Your task to perform on an android device: turn off sleep mode Image 0: 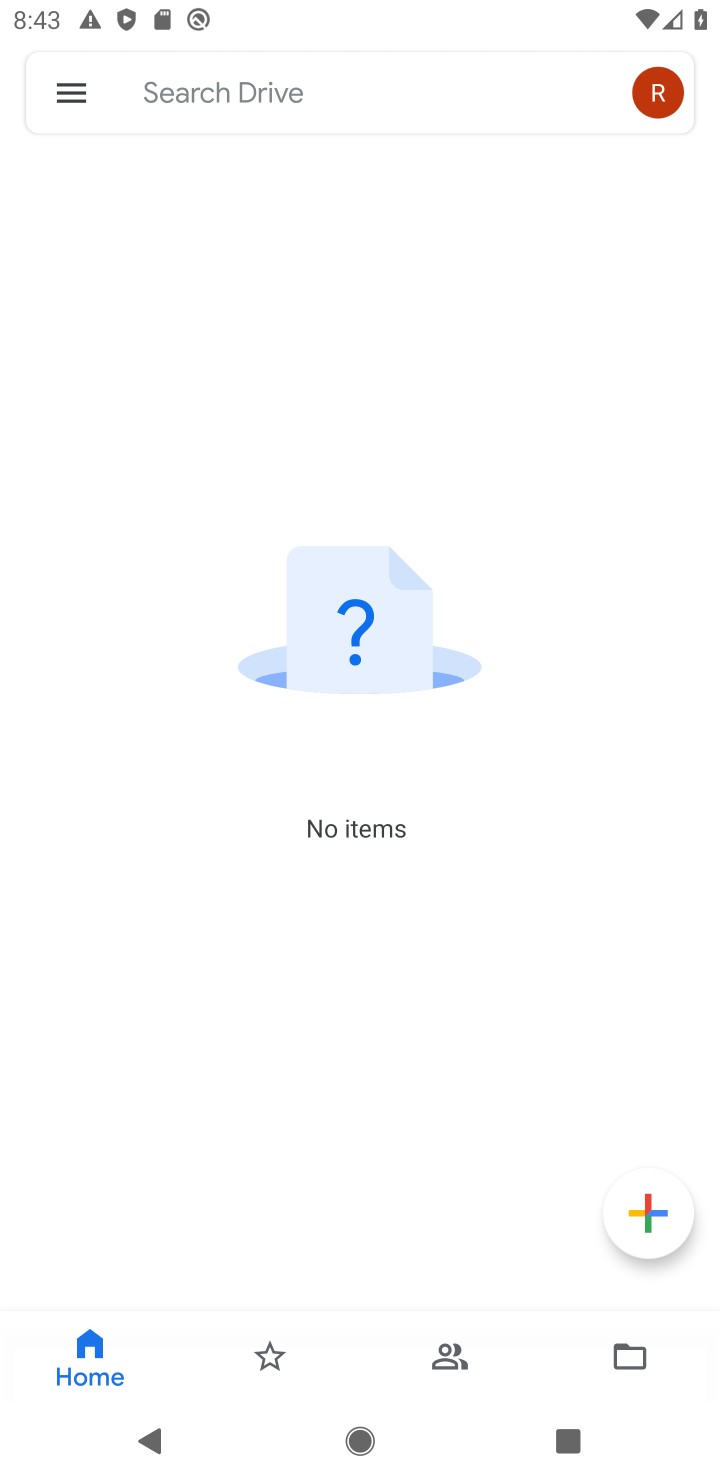
Step 0: press home button
Your task to perform on an android device: turn off sleep mode Image 1: 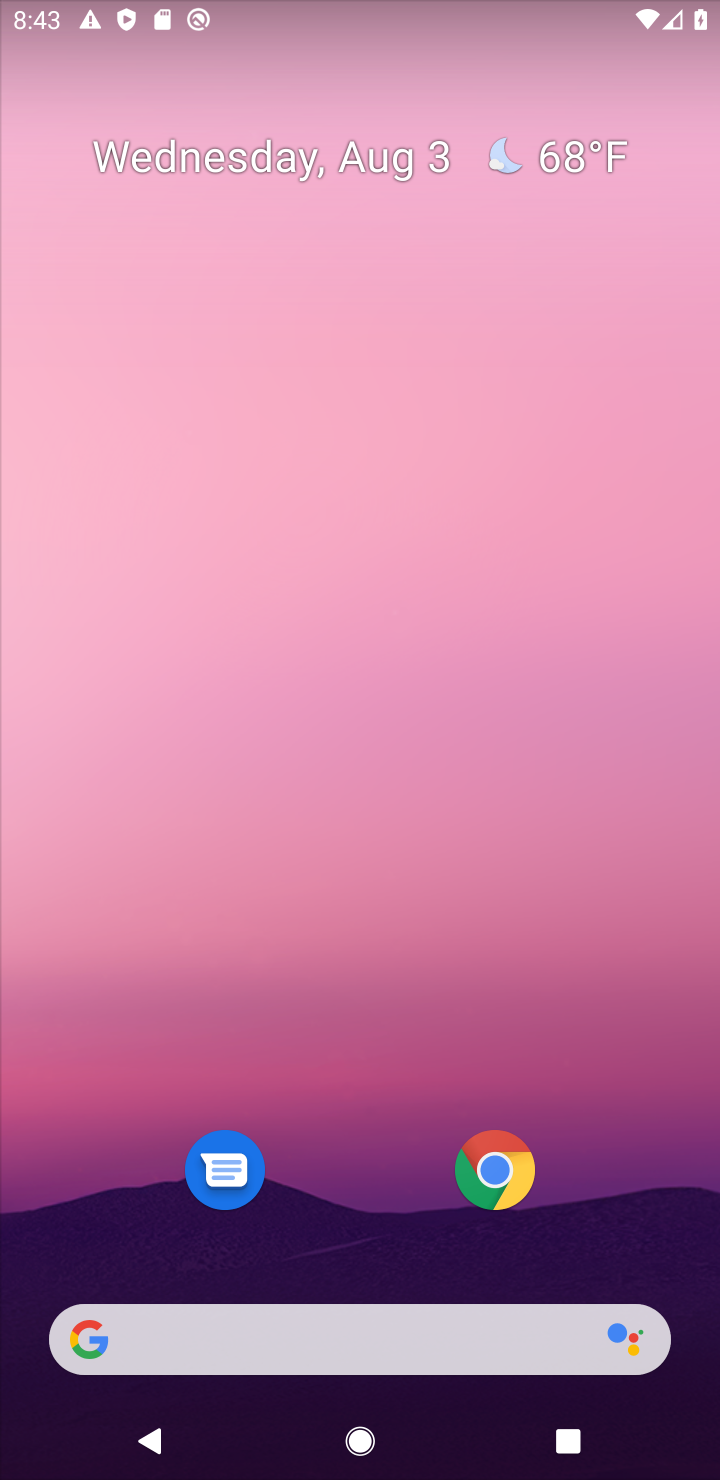
Step 1: drag from (671, 1232) to (571, 461)
Your task to perform on an android device: turn off sleep mode Image 2: 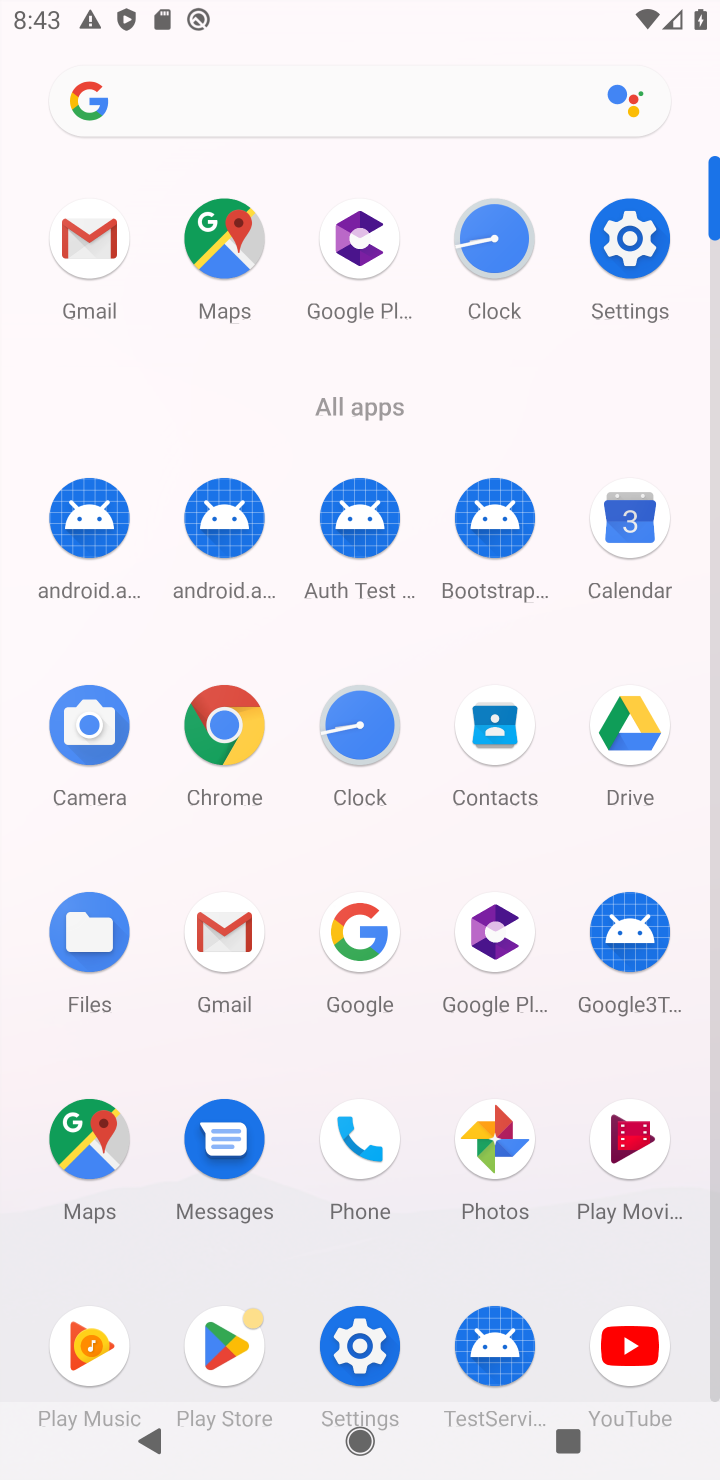
Step 2: click (355, 1346)
Your task to perform on an android device: turn off sleep mode Image 3: 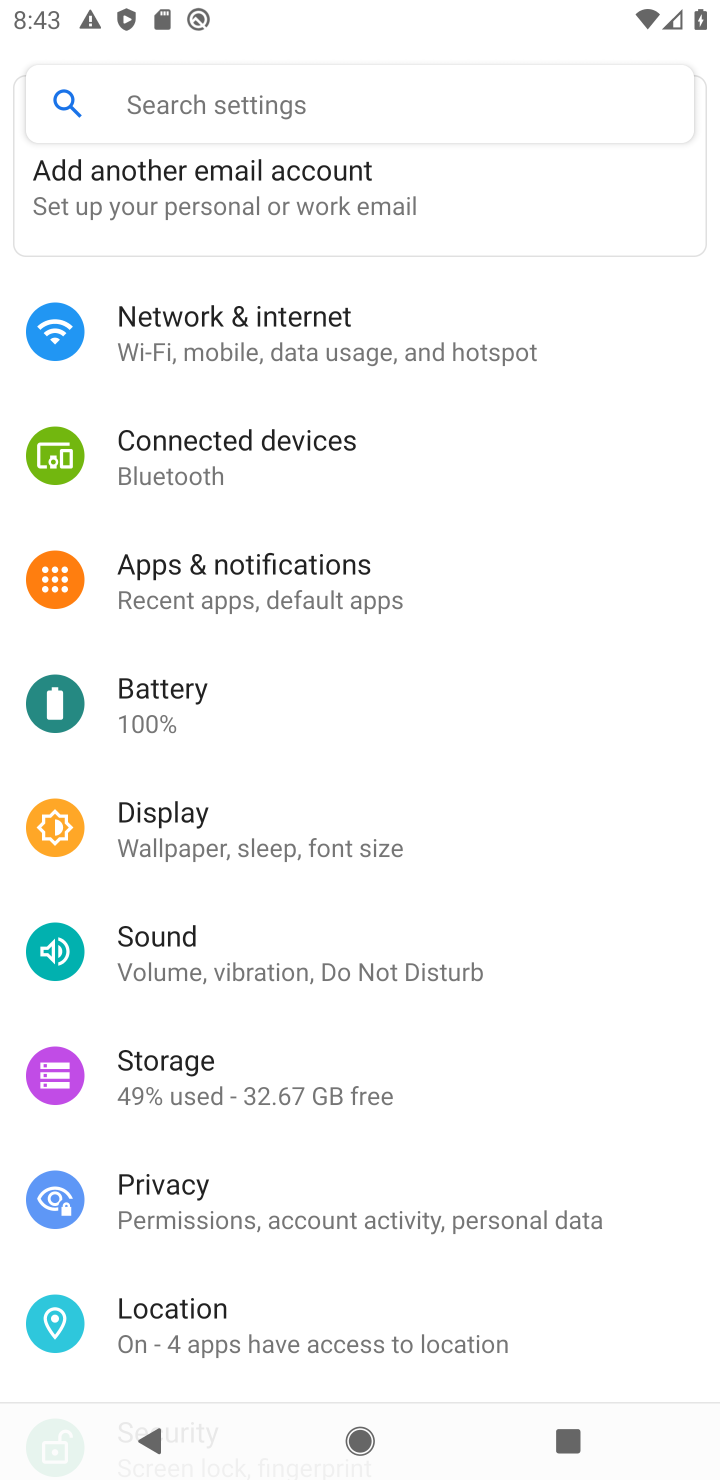
Step 3: click (203, 833)
Your task to perform on an android device: turn off sleep mode Image 4: 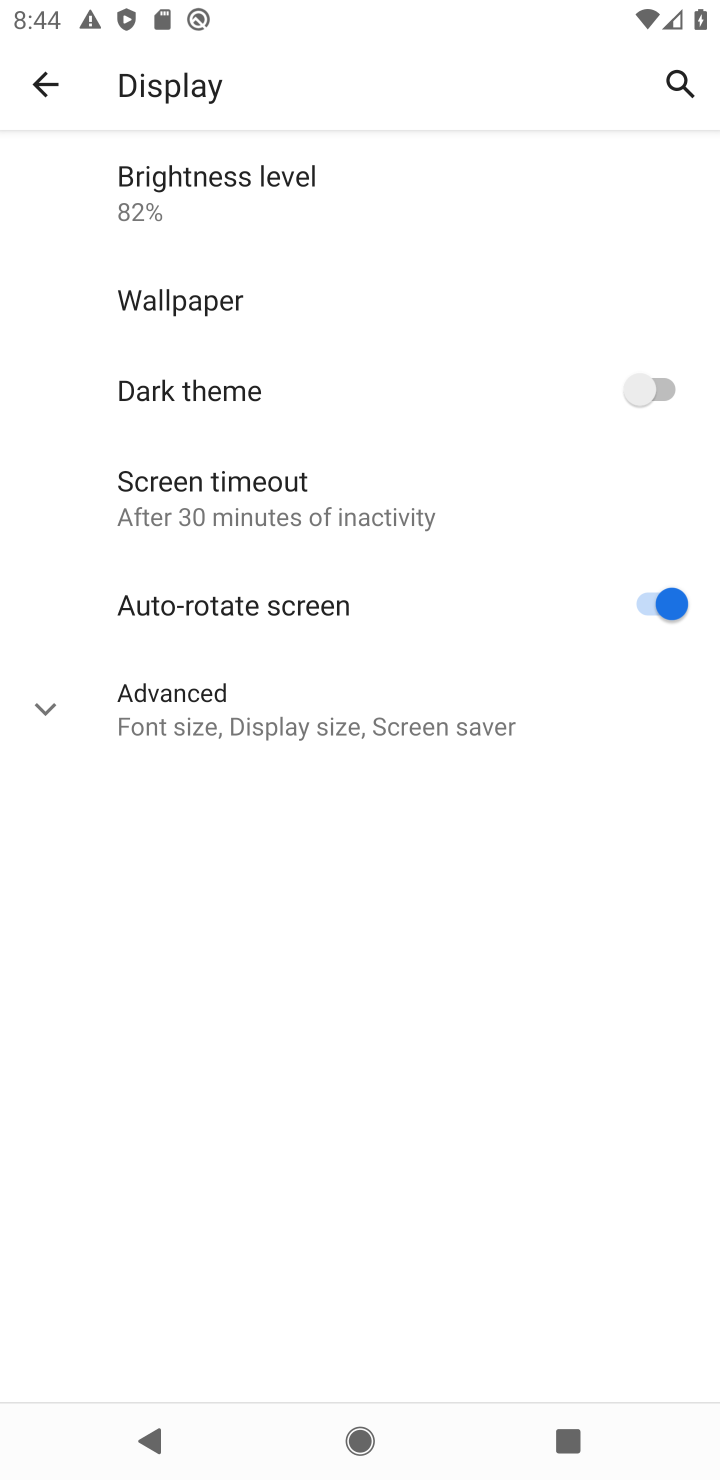
Step 4: click (56, 695)
Your task to perform on an android device: turn off sleep mode Image 5: 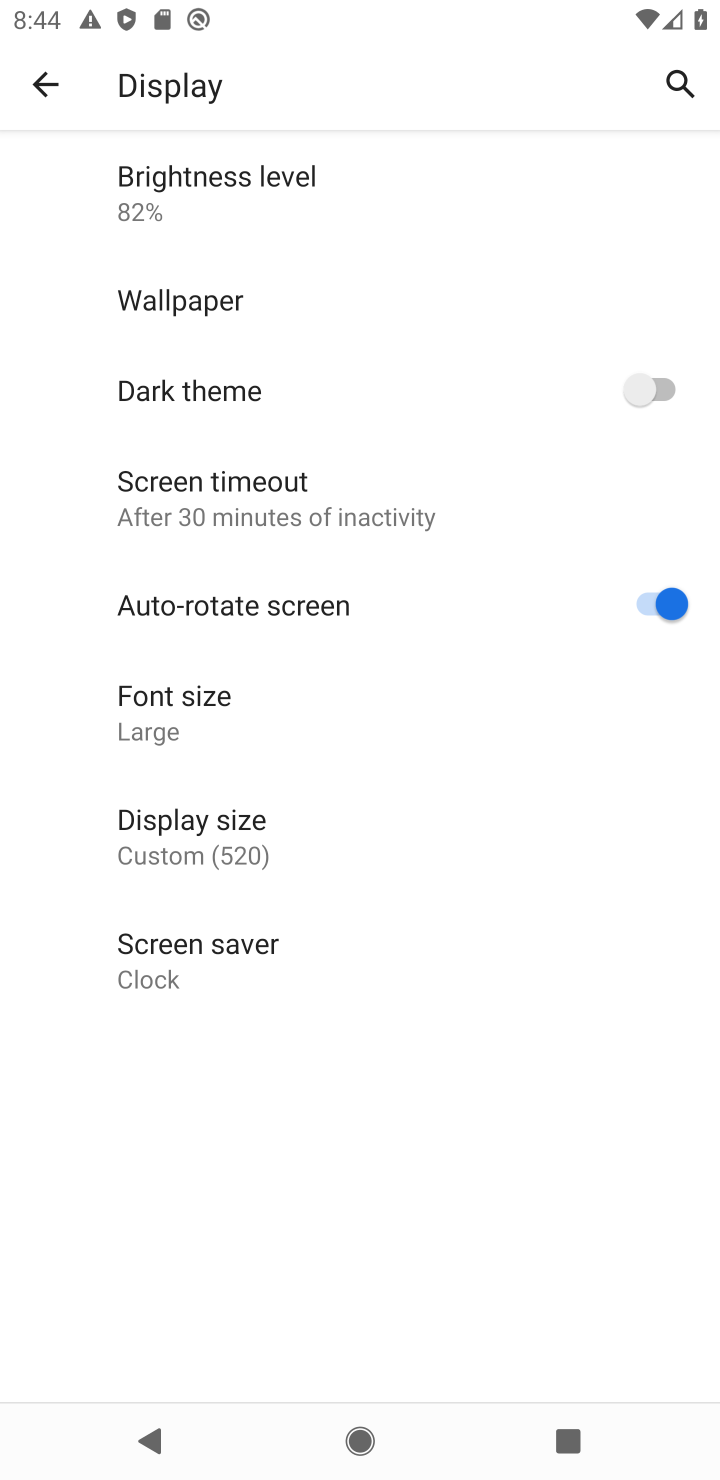
Step 5: task complete